Your task to perform on an android device: Open accessibility settings Image 0: 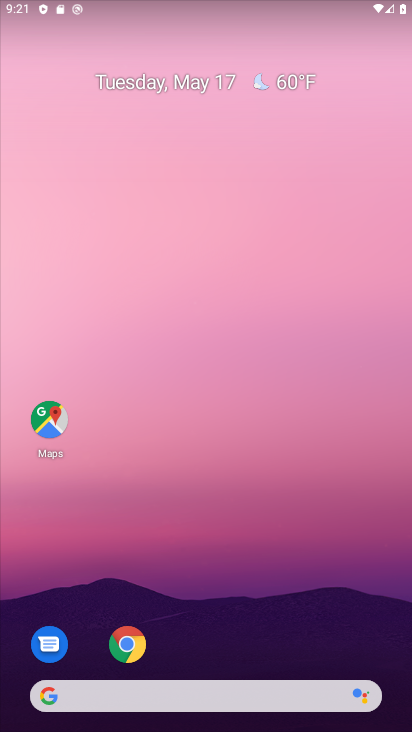
Step 0: drag from (212, 650) to (242, 216)
Your task to perform on an android device: Open accessibility settings Image 1: 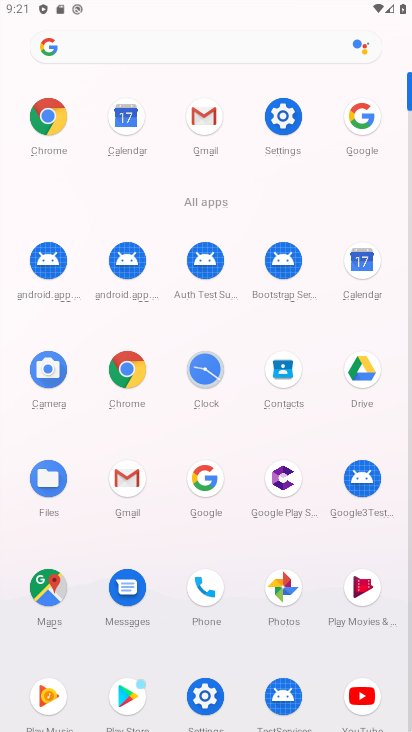
Step 1: click (292, 123)
Your task to perform on an android device: Open accessibility settings Image 2: 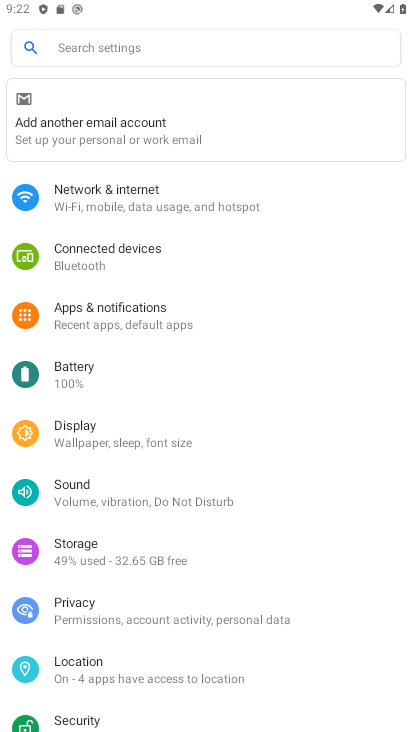
Step 2: drag from (136, 649) to (236, 213)
Your task to perform on an android device: Open accessibility settings Image 3: 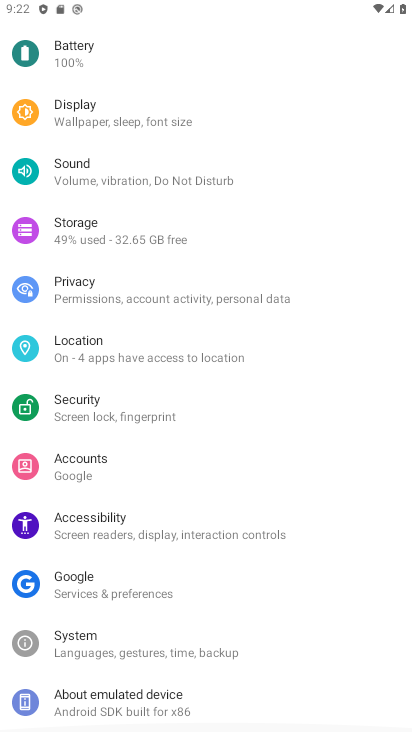
Step 3: click (158, 525)
Your task to perform on an android device: Open accessibility settings Image 4: 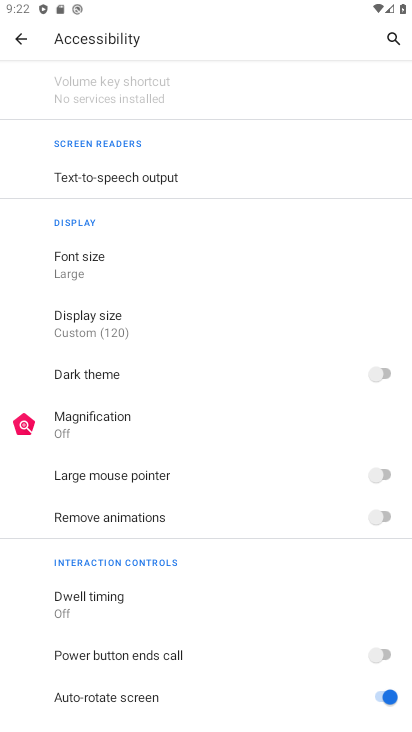
Step 4: task complete